Your task to perform on an android device: open a bookmark in the chrome app Image 0: 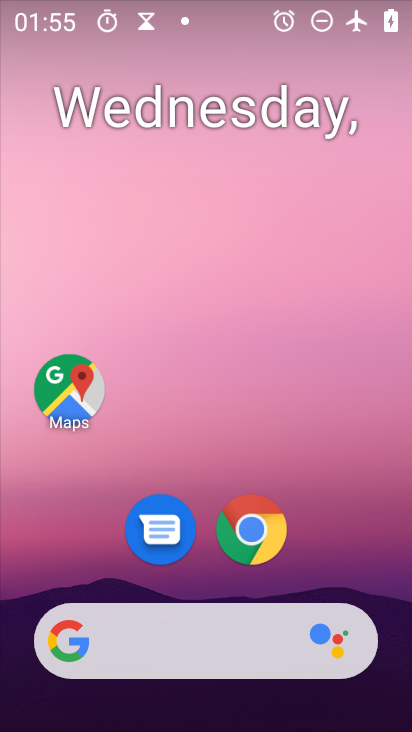
Step 0: drag from (329, 606) to (230, 10)
Your task to perform on an android device: open a bookmark in the chrome app Image 1: 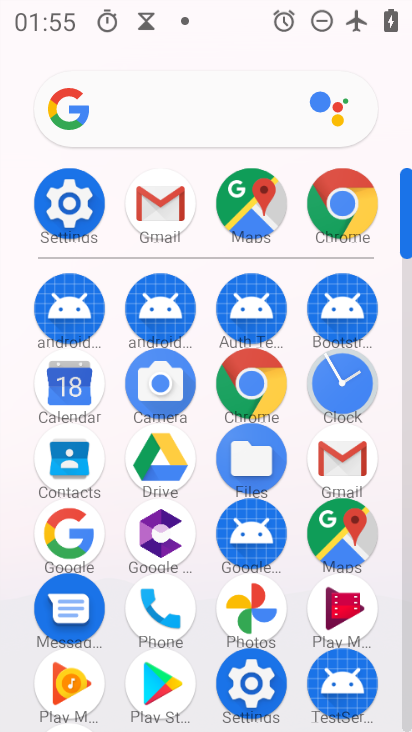
Step 1: click (233, 377)
Your task to perform on an android device: open a bookmark in the chrome app Image 2: 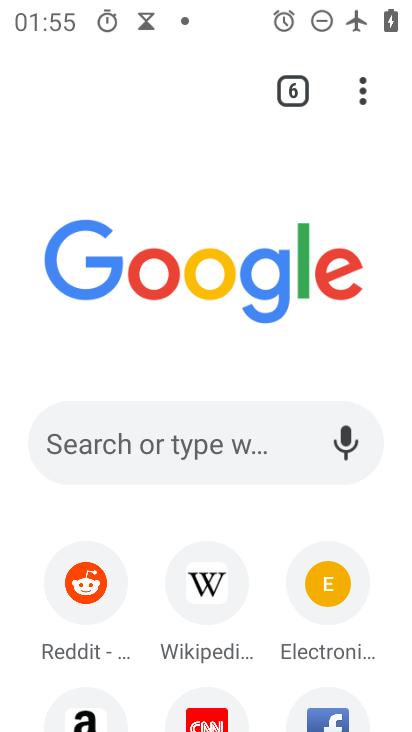
Step 2: task complete